Your task to perform on an android device: open device folders in google photos Image 0: 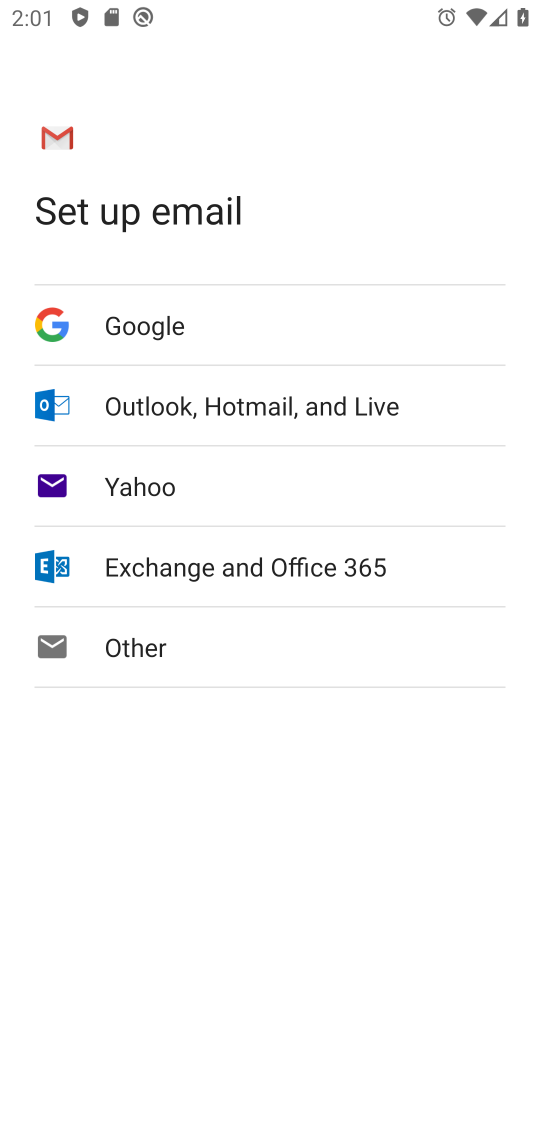
Step 0: click (375, 831)
Your task to perform on an android device: open device folders in google photos Image 1: 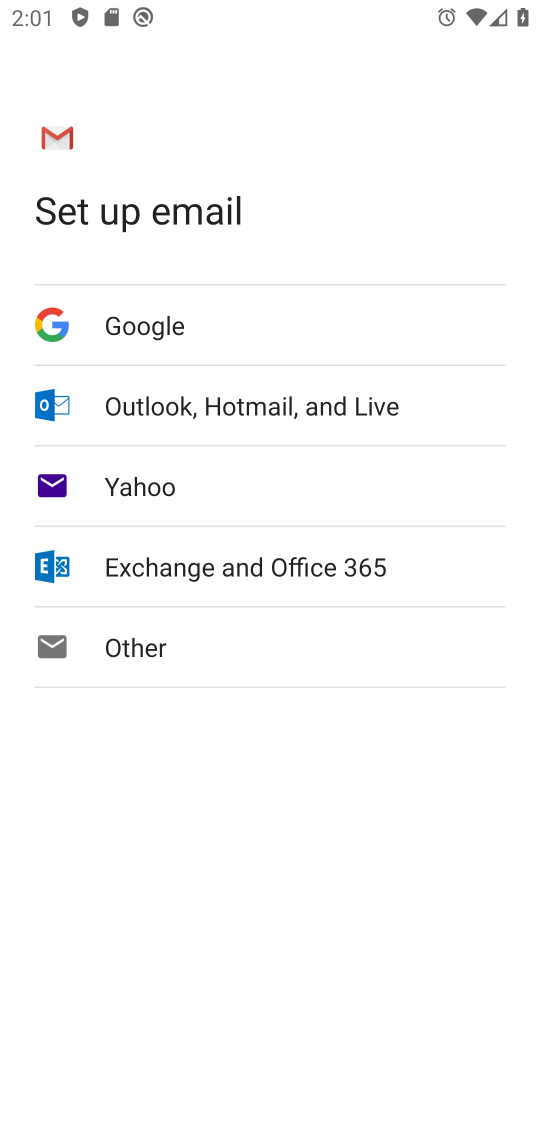
Step 1: press home button
Your task to perform on an android device: open device folders in google photos Image 2: 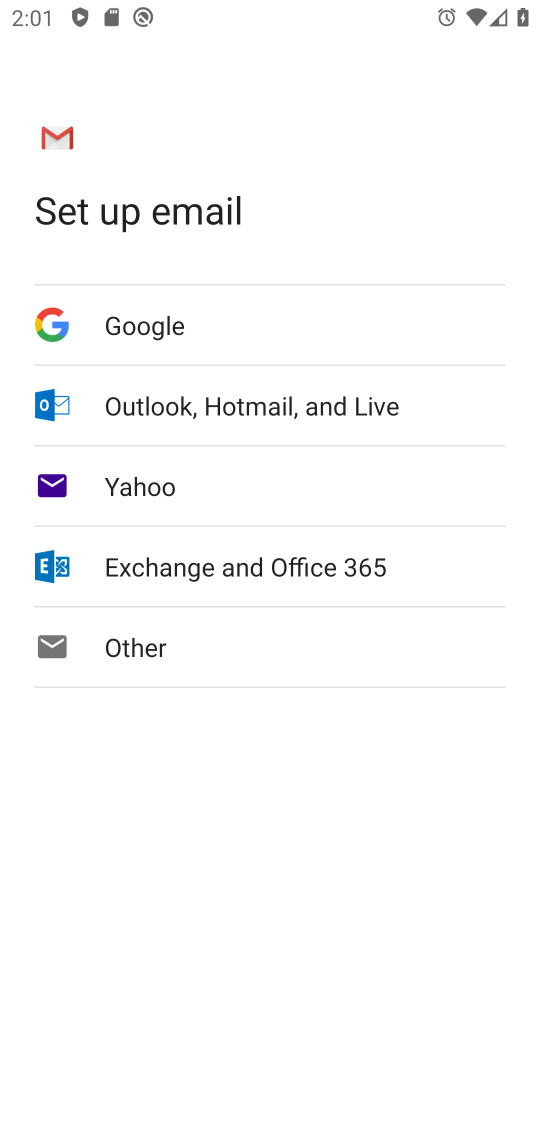
Step 2: press home button
Your task to perform on an android device: open device folders in google photos Image 3: 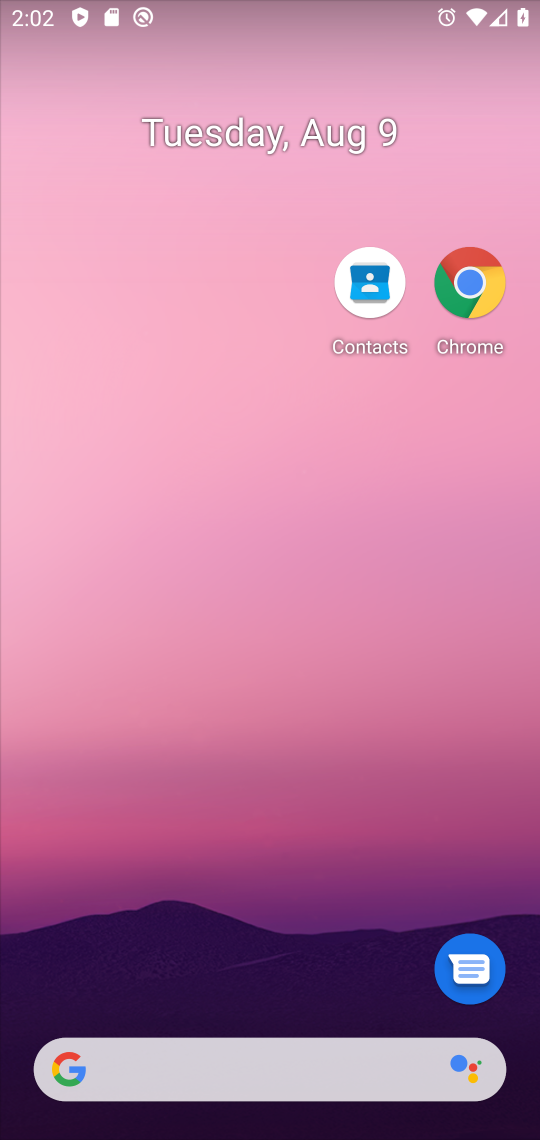
Step 3: drag from (326, 1000) to (404, 142)
Your task to perform on an android device: open device folders in google photos Image 4: 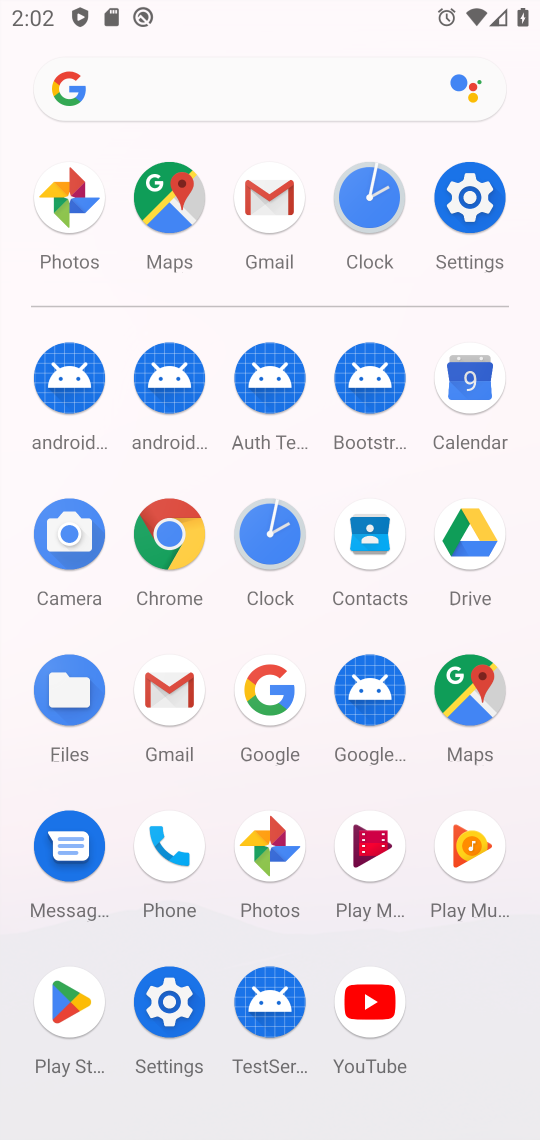
Step 4: click (261, 841)
Your task to perform on an android device: open device folders in google photos Image 5: 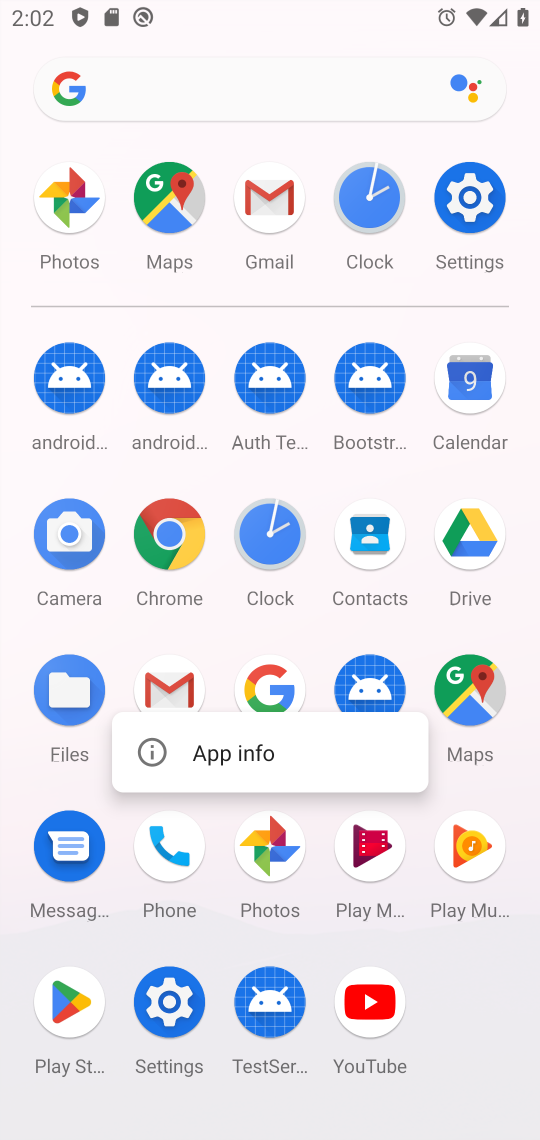
Step 5: click (322, 757)
Your task to perform on an android device: open device folders in google photos Image 6: 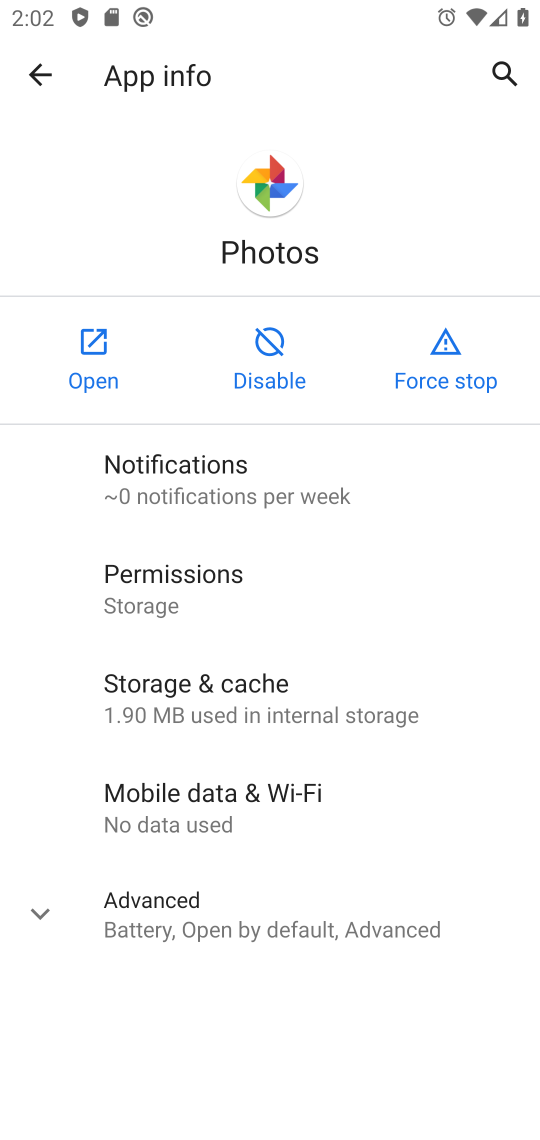
Step 6: click (91, 366)
Your task to perform on an android device: open device folders in google photos Image 7: 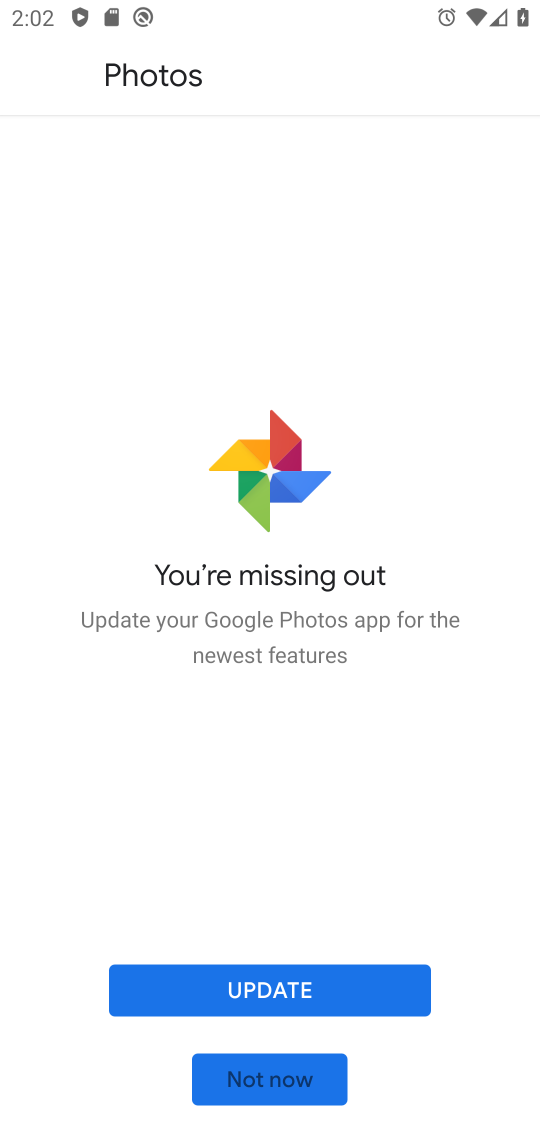
Step 7: click (302, 1071)
Your task to perform on an android device: open device folders in google photos Image 8: 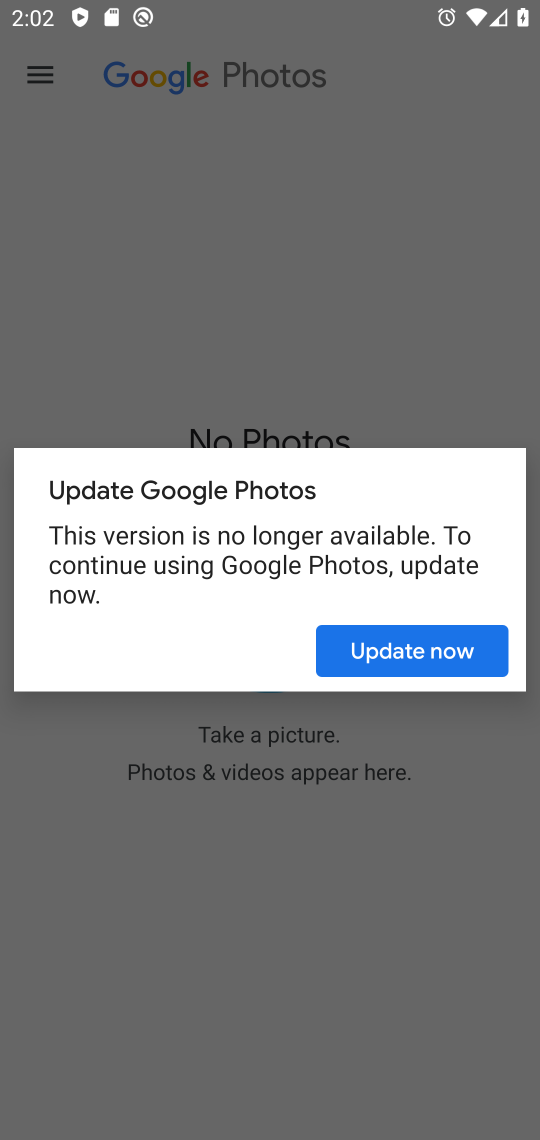
Step 8: click (377, 646)
Your task to perform on an android device: open device folders in google photos Image 9: 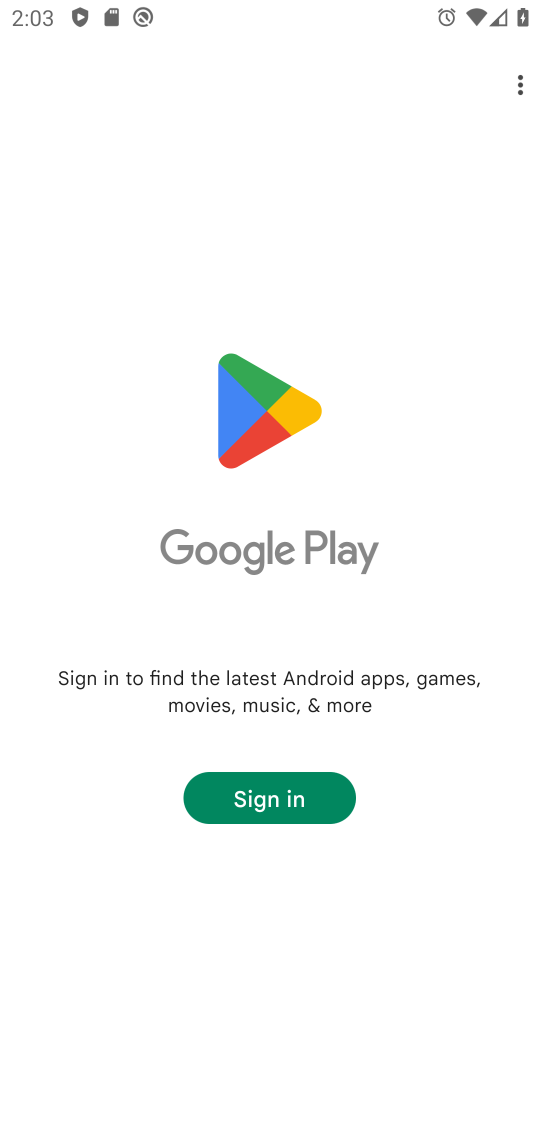
Step 9: drag from (423, 924) to (424, 682)
Your task to perform on an android device: open device folders in google photos Image 10: 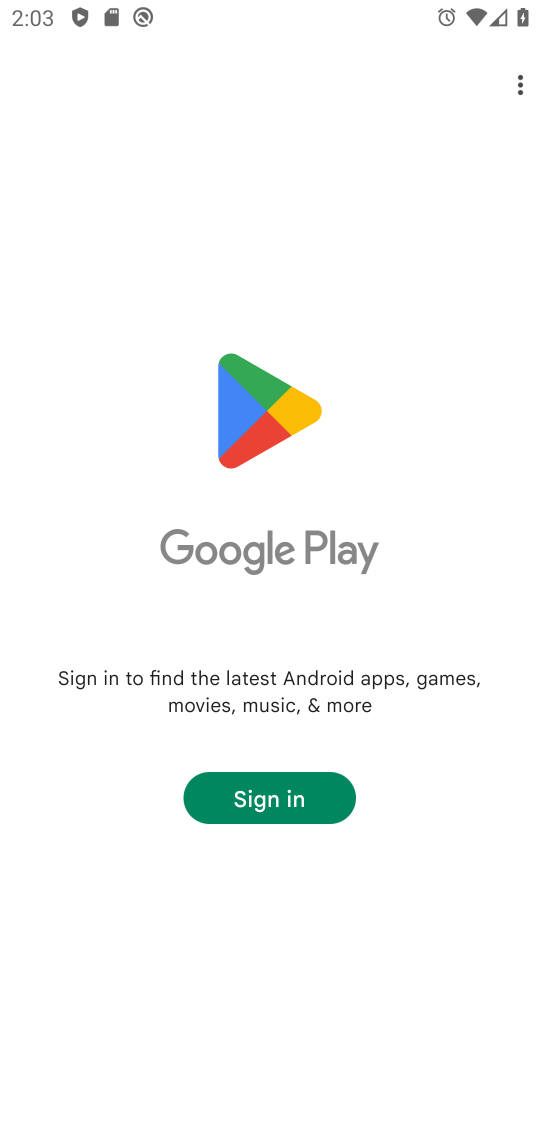
Step 10: drag from (376, 996) to (311, 526)
Your task to perform on an android device: open device folders in google photos Image 11: 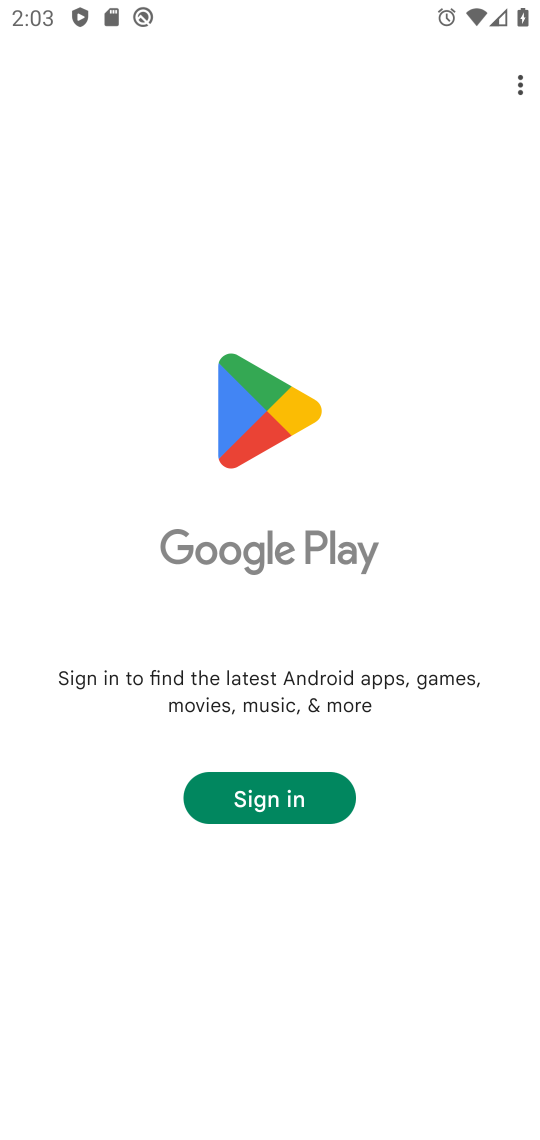
Step 11: press home button
Your task to perform on an android device: open device folders in google photos Image 12: 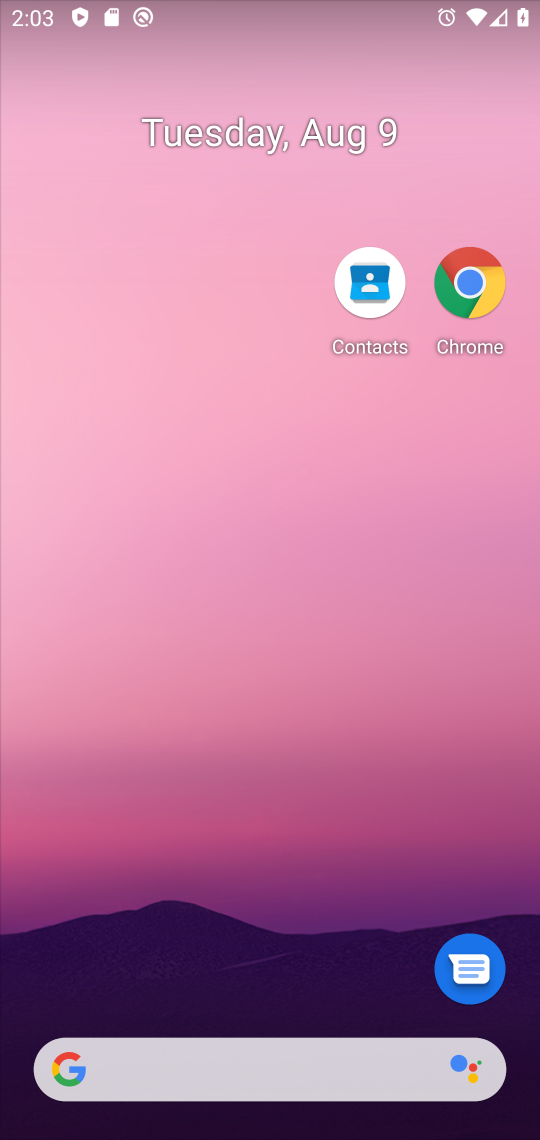
Step 12: drag from (346, 970) to (410, 363)
Your task to perform on an android device: open device folders in google photos Image 13: 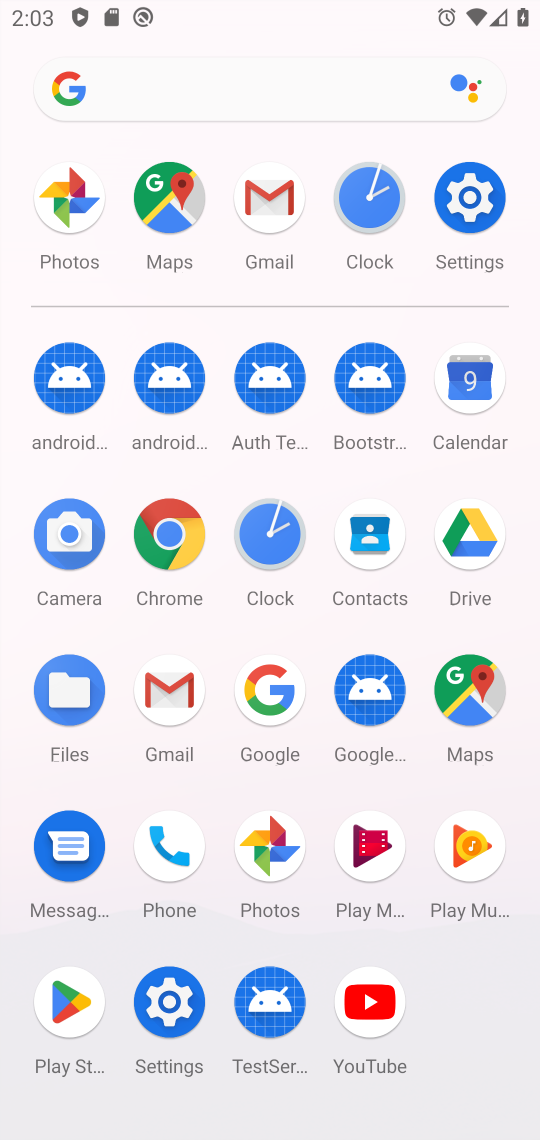
Step 13: click (273, 844)
Your task to perform on an android device: open device folders in google photos Image 14: 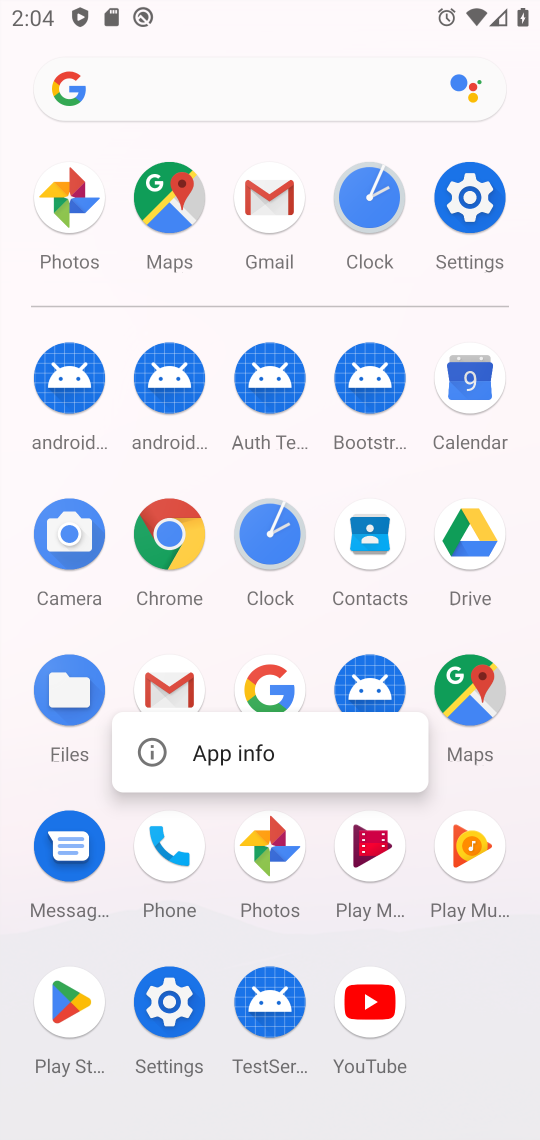
Step 14: click (279, 763)
Your task to perform on an android device: open device folders in google photos Image 15: 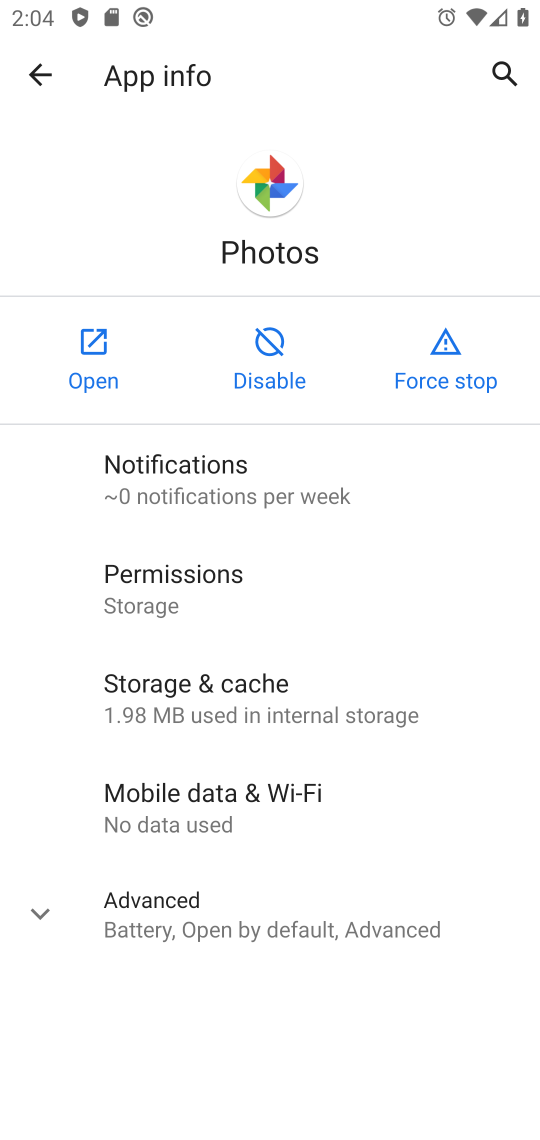
Step 15: click (117, 349)
Your task to perform on an android device: open device folders in google photos Image 16: 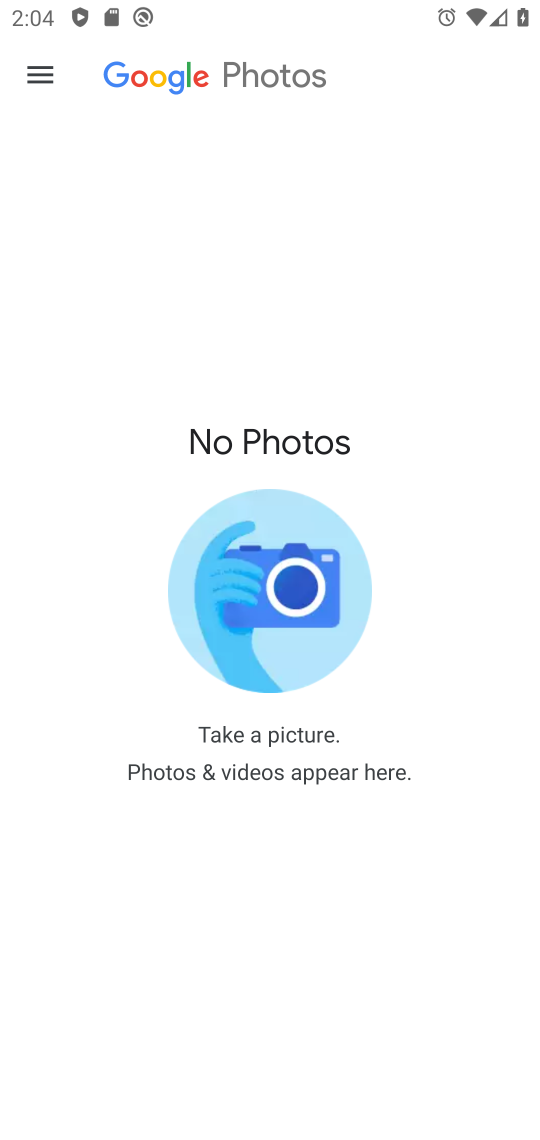
Step 16: drag from (380, 859) to (347, 285)
Your task to perform on an android device: open device folders in google photos Image 17: 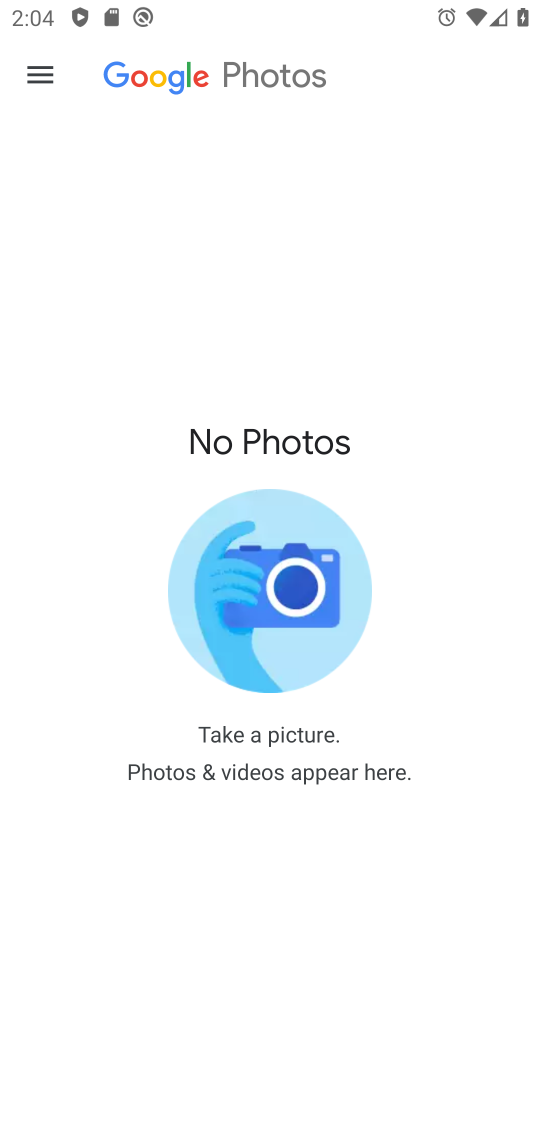
Step 17: drag from (310, 594) to (310, 367)
Your task to perform on an android device: open device folders in google photos Image 18: 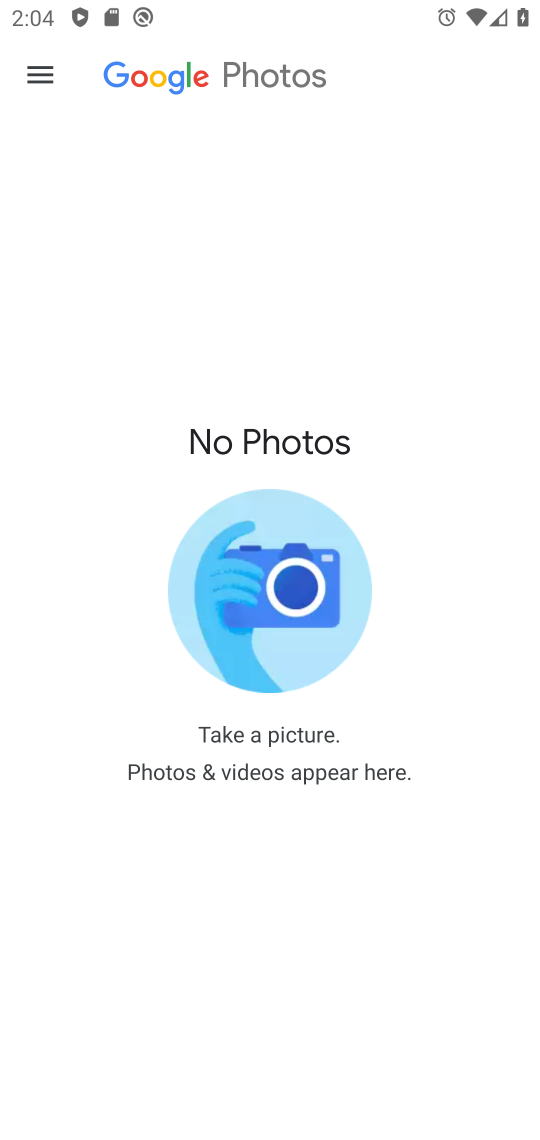
Step 18: click (58, 58)
Your task to perform on an android device: open device folders in google photos Image 19: 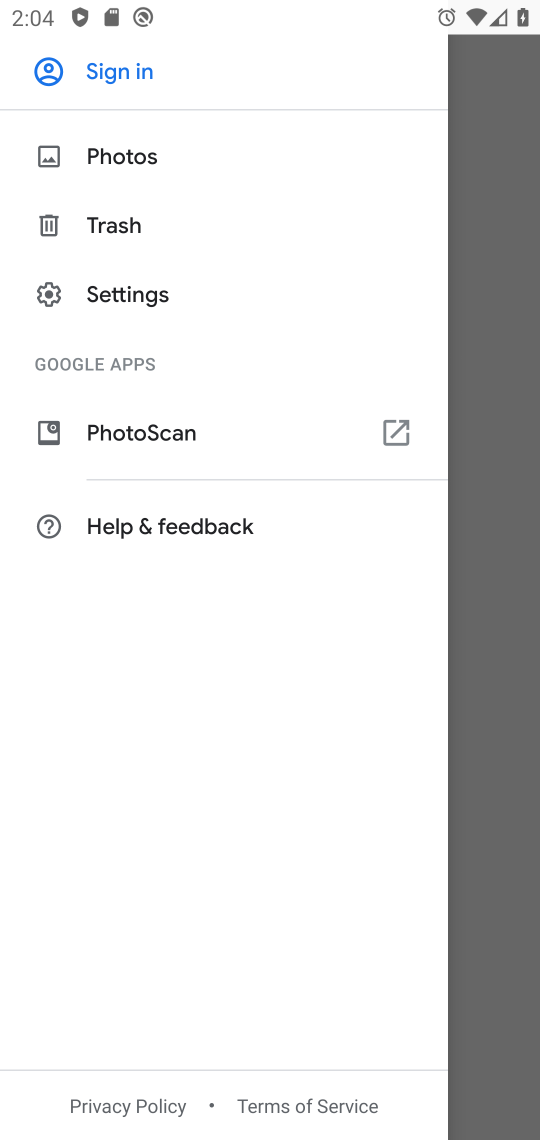
Step 19: click (175, 137)
Your task to perform on an android device: open device folders in google photos Image 20: 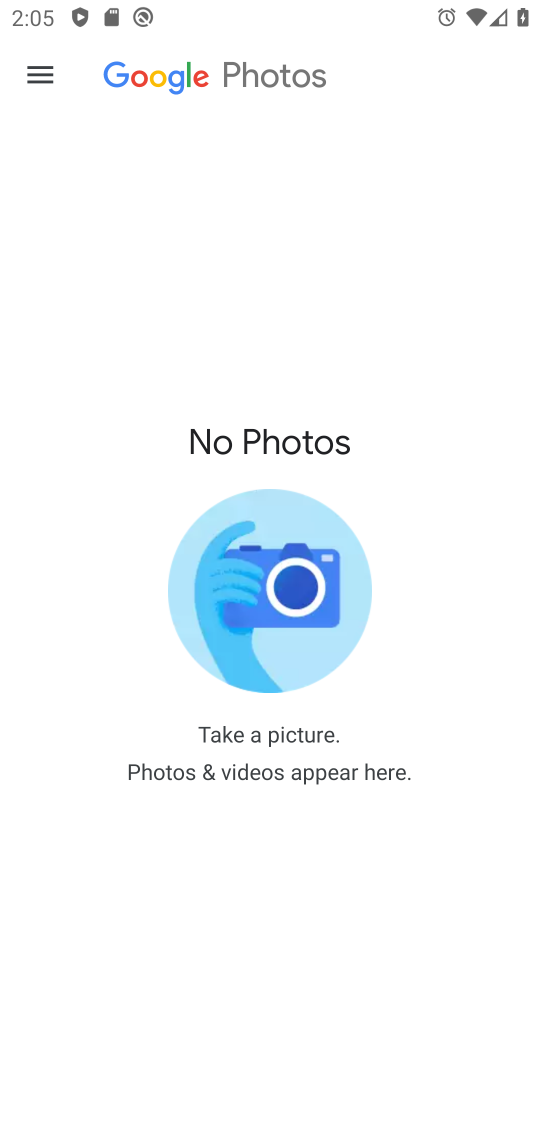
Step 20: task complete